Your task to perform on an android device: Open ESPN.com Image 0: 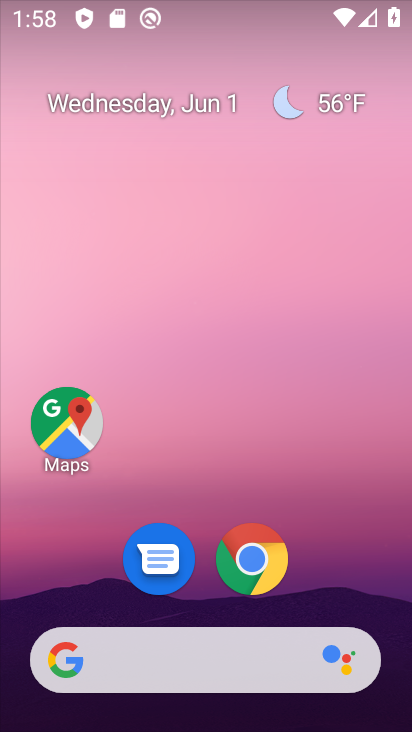
Step 0: click (252, 562)
Your task to perform on an android device: Open ESPN.com Image 1: 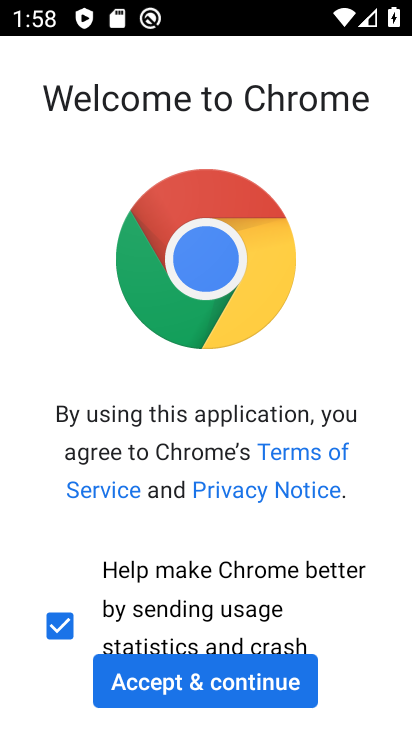
Step 1: click (212, 671)
Your task to perform on an android device: Open ESPN.com Image 2: 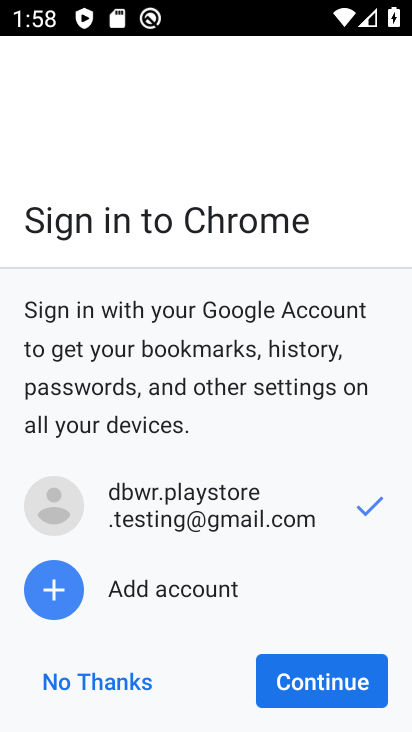
Step 2: click (282, 684)
Your task to perform on an android device: Open ESPN.com Image 3: 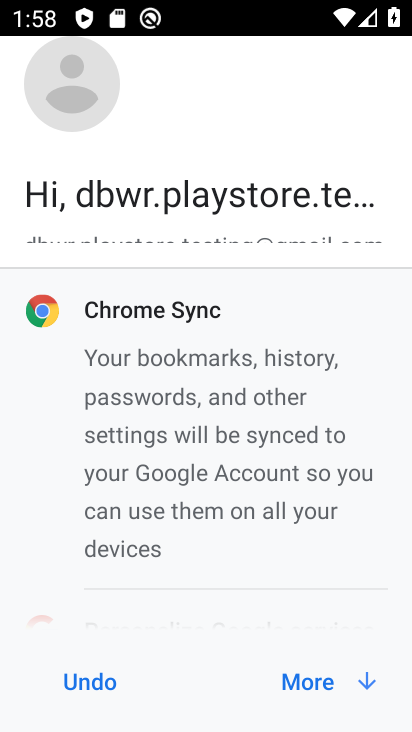
Step 3: click (282, 684)
Your task to perform on an android device: Open ESPN.com Image 4: 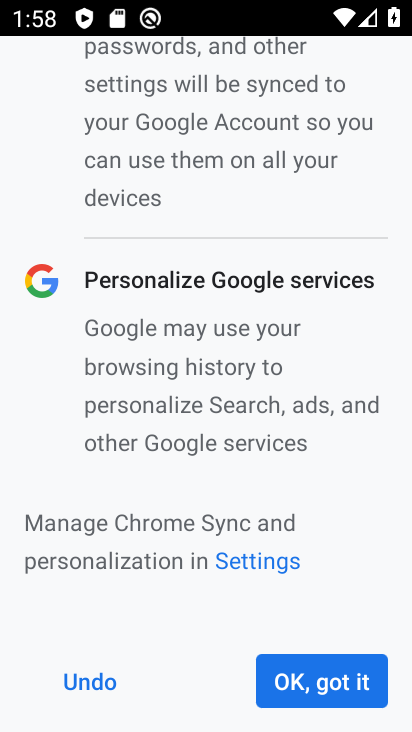
Step 4: click (282, 684)
Your task to perform on an android device: Open ESPN.com Image 5: 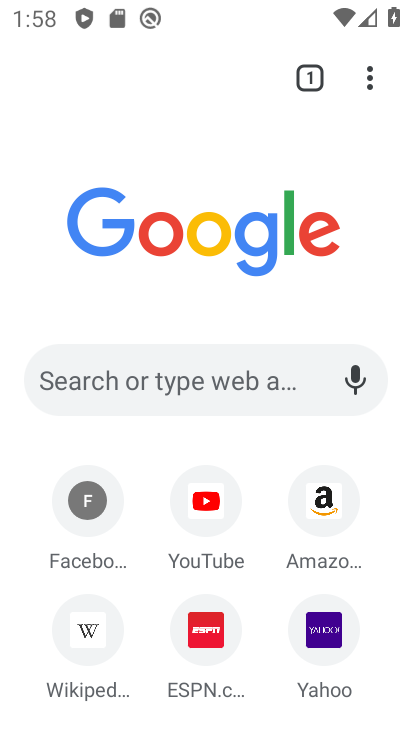
Step 5: click (174, 380)
Your task to perform on an android device: Open ESPN.com Image 6: 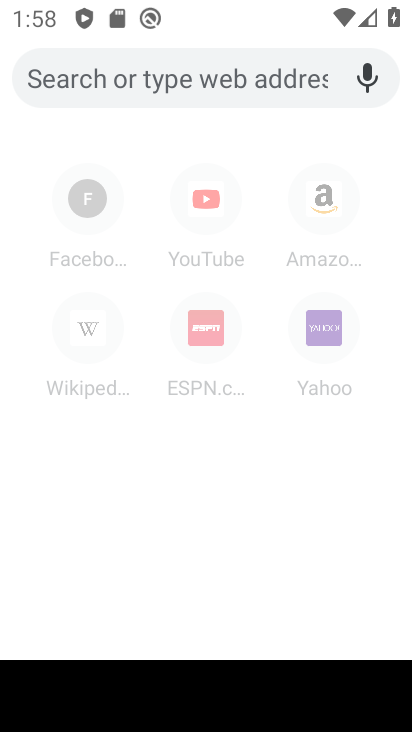
Step 6: type "ESPN.com"
Your task to perform on an android device: Open ESPN.com Image 7: 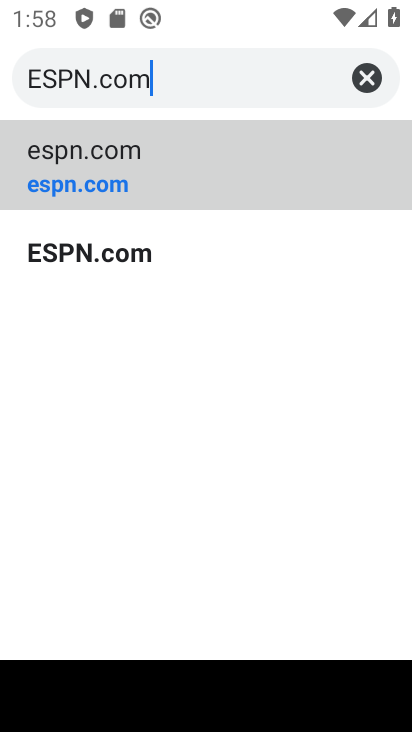
Step 7: type ""
Your task to perform on an android device: Open ESPN.com Image 8: 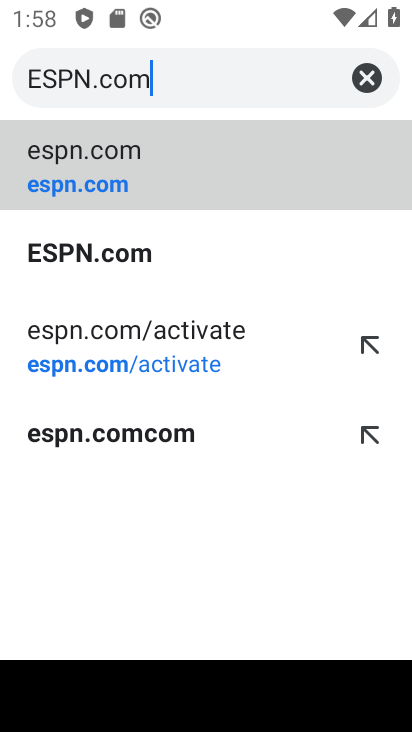
Step 8: click (133, 249)
Your task to perform on an android device: Open ESPN.com Image 9: 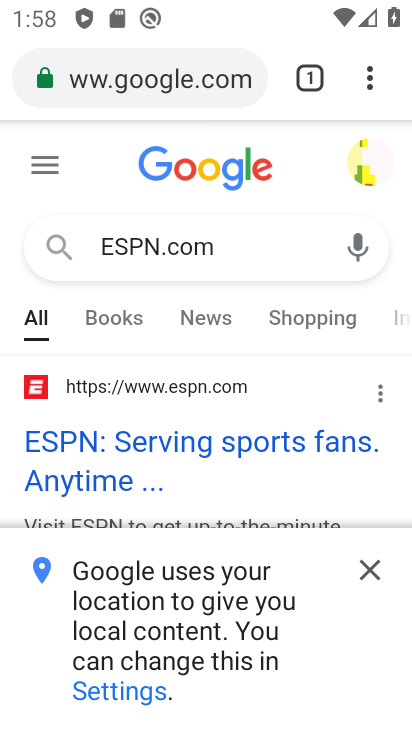
Step 9: click (368, 575)
Your task to perform on an android device: Open ESPN.com Image 10: 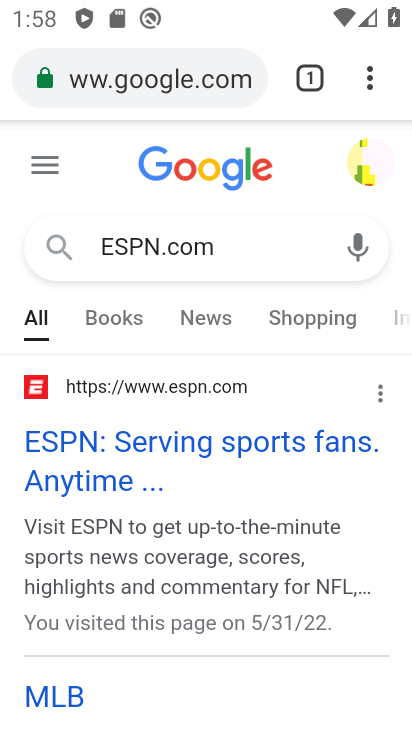
Step 10: click (199, 451)
Your task to perform on an android device: Open ESPN.com Image 11: 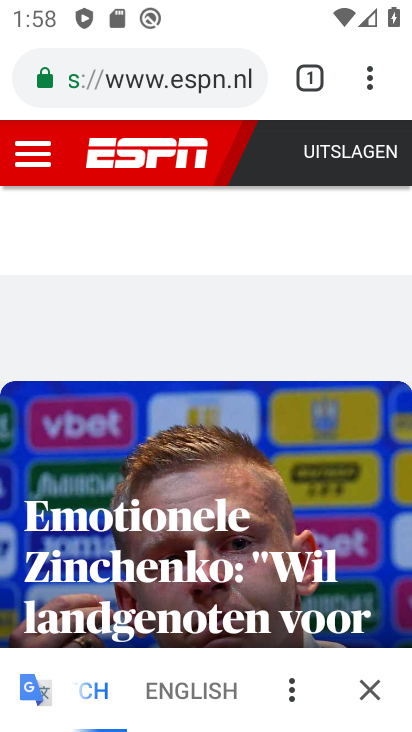
Step 11: task complete